Your task to perform on an android device: Open the Play Movies app and select the watchlist tab. Image 0: 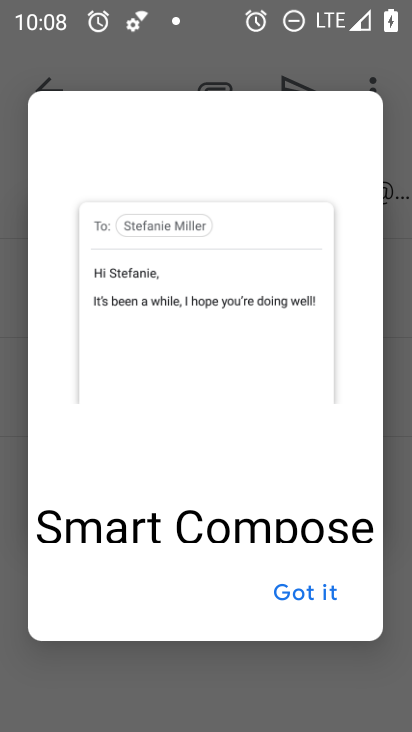
Step 0: press home button
Your task to perform on an android device: Open the Play Movies app and select the watchlist tab. Image 1: 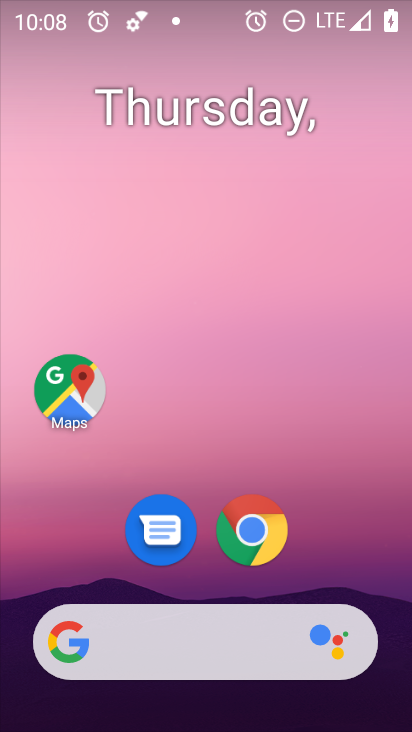
Step 1: drag from (316, 495) to (253, 32)
Your task to perform on an android device: Open the Play Movies app and select the watchlist tab. Image 2: 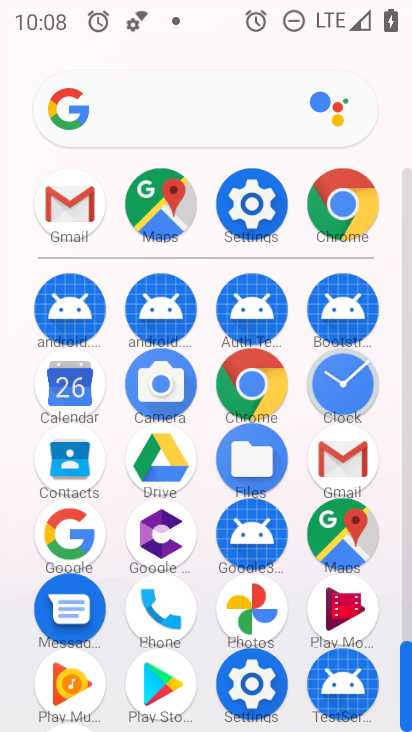
Step 2: click (339, 602)
Your task to perform on an android device: Open the Play Movies app and select the watchlist tab. Image 3: 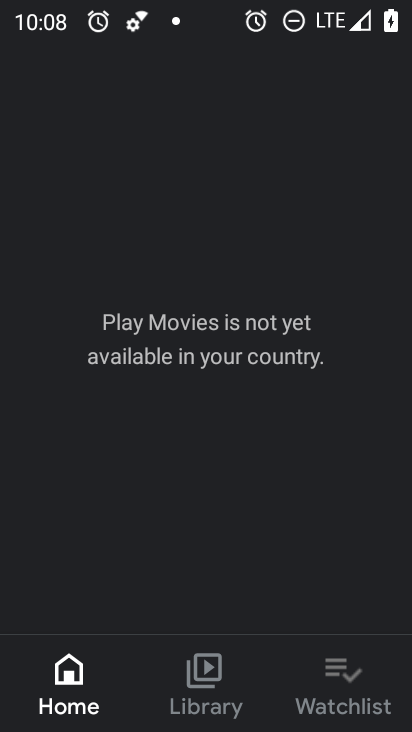
Step 3: click (324, 699)
Your task to perform on an android device: Open the Play Movies app and select the watchlist tab. Image 4: 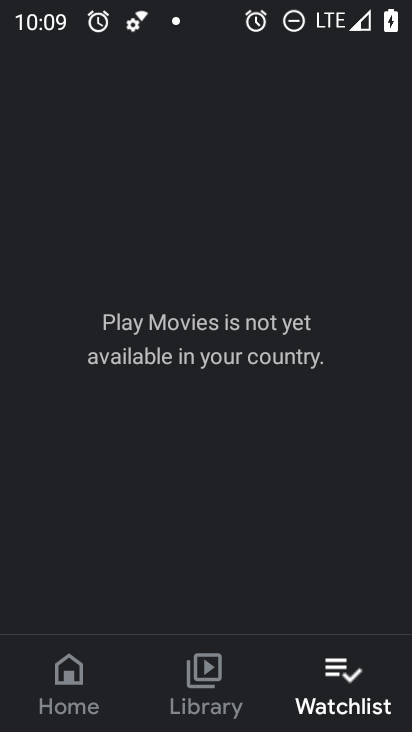
Step 4: task complete